Your task to perform on an android device: Open settings Image 0: 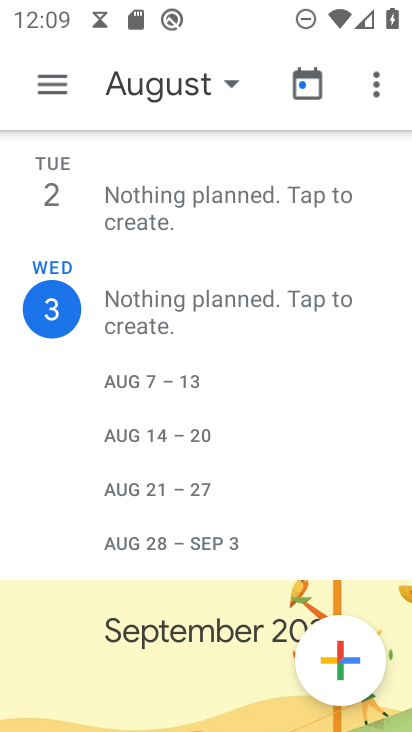
Step 0: press home button
Your task to perform on an android device: Open settings Image 1: 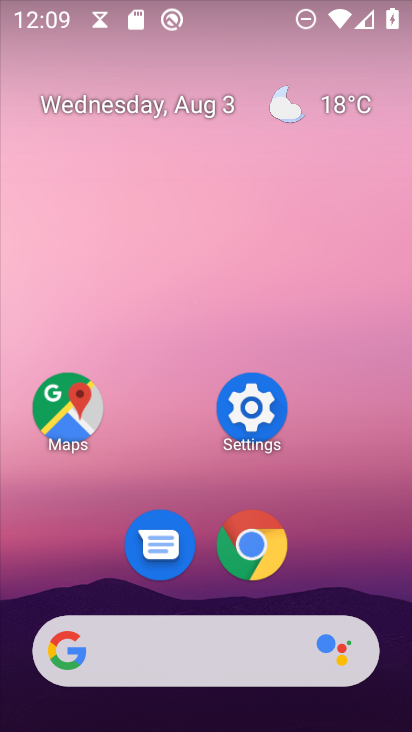
Step 1: click (248, 405)
Your task to perform on an android device: Open settings Image 2: 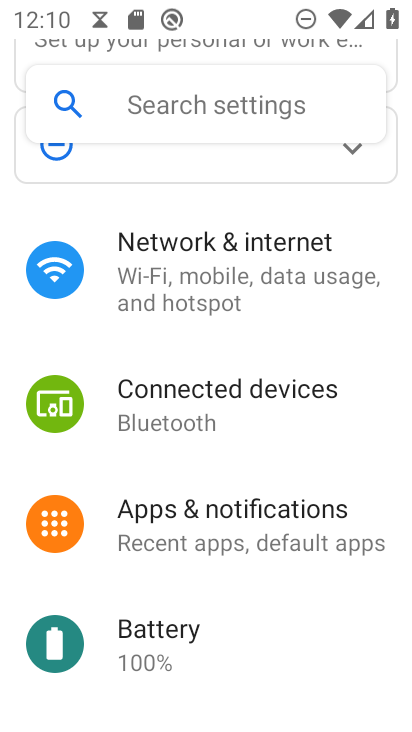
Step 2: task complete